Your task to perform on an android device: Search for pizza restaurants on Maps Image 0: 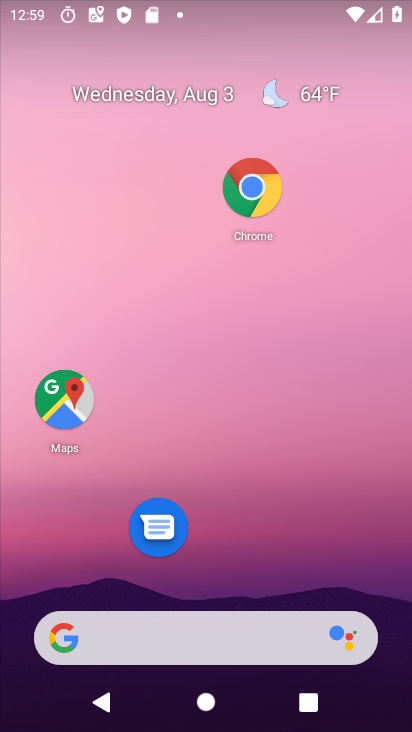
Step 0: drag from (211, 573) to (210, 153)
Your task to perform on an android device: Search for pizza restaurants on Maps Image 1: 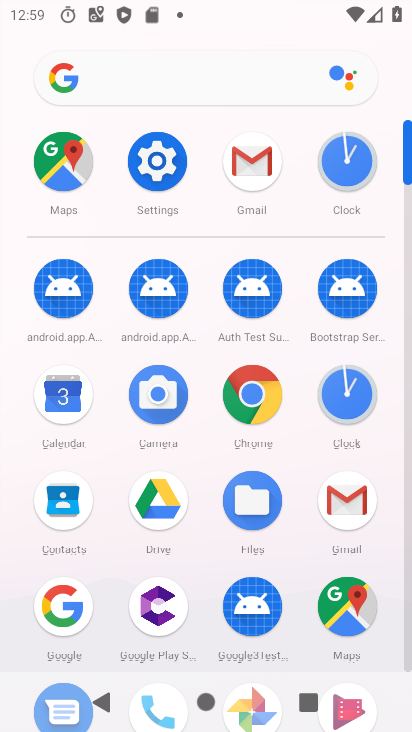
Step 1: click (340, 613)
Your task to perform on an android device: Search for pizza restaurants on Maps Image 2: 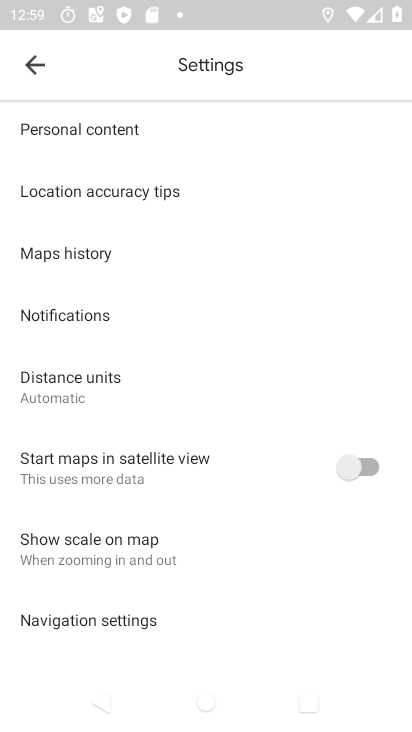
Step 2: click (36, 64)
Your task to perform on an android device: Search for pizza restaurants on Maps Image 3: 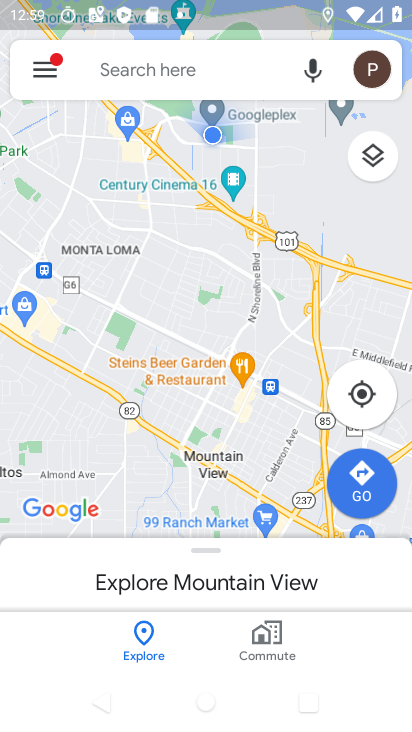
Step 3: click (198, 61)
Your task to perform on an android device: Search for pizza restaurants on Maps Image 4: 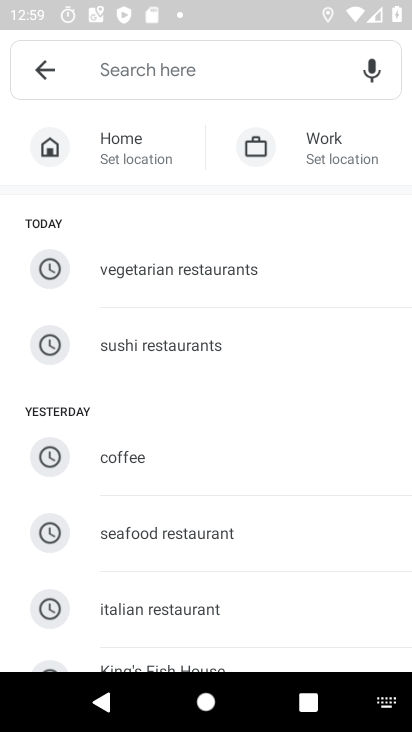
Step 4: type "Pizza restaurants"
Your task to perform on an android device: Search for pizza restaurants on Maps Image 5: 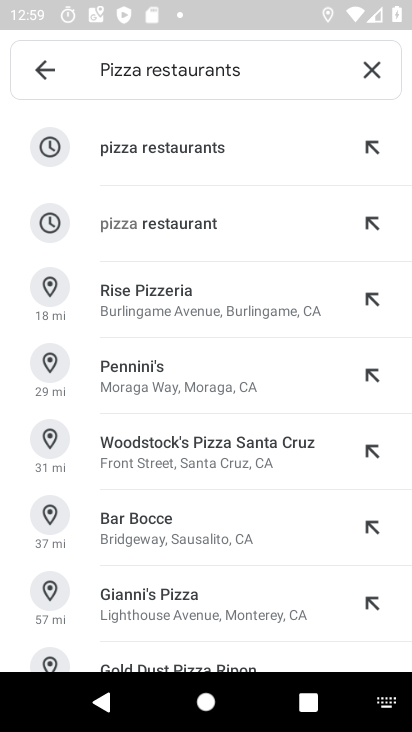
Step 5: click (178, 157)
Your task to perform on an android device: Search for pizza restaurants on Maps Image 6: 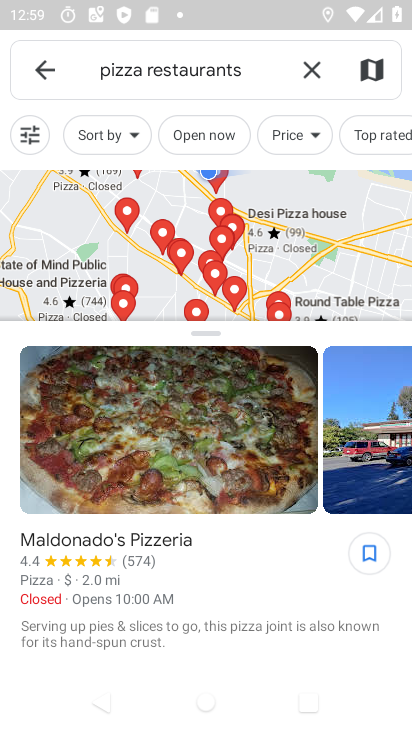
Step 6: task complete